Your task to perform on an android device: Open ESPN.com Image 0: 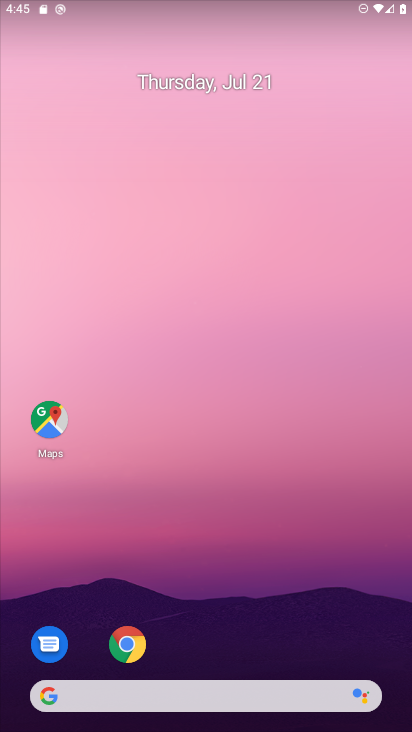
Step 0: click (120, 647)
Your task to perform on an android device: Open ESPN.com Image 1: 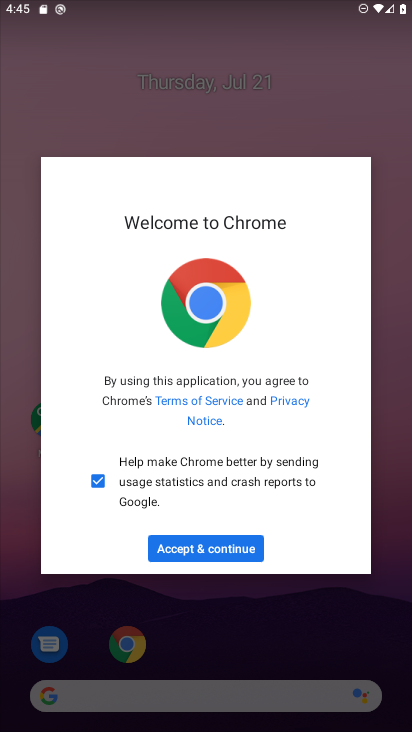
Step 1: click (167, 541)
Your task to perform on an android device: Open ESPN.com Image 2: 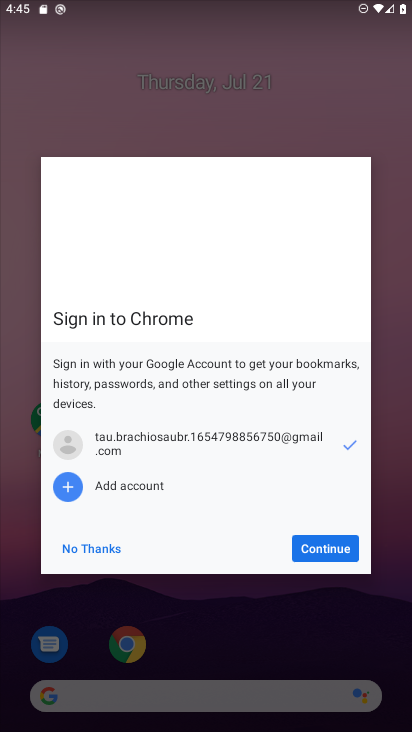
Step 2: click (338, 549)
Your task to perform on an android device: Open ESPN.com Image 3: 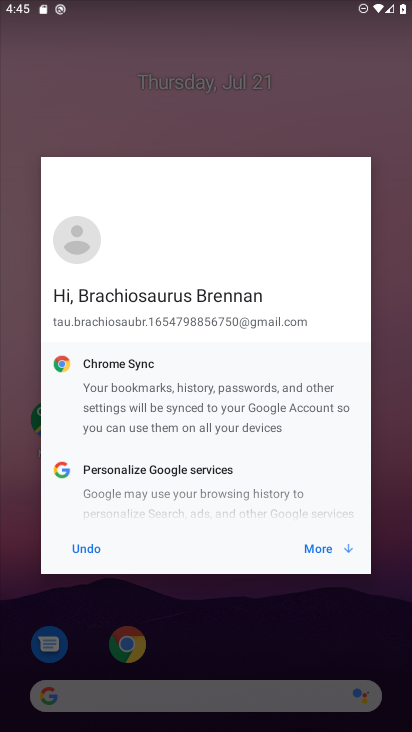
Step 3: click (328, 544)
Your task to perform on an android device: Open ESPN.com Image 4: 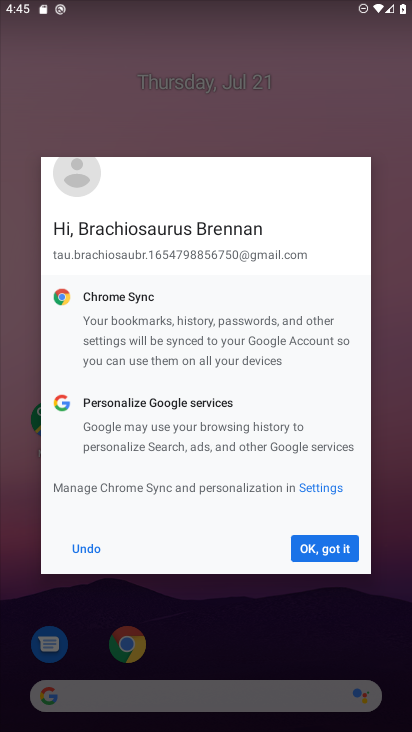
Step 4: click (309, 549)
Your task to perform on an android device: Open ESPN.com Image 5: 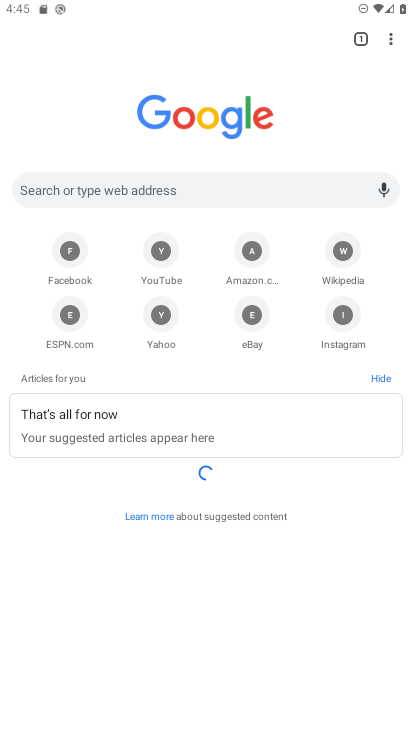
Step 5: click (165, 181)
Your task to perform on an android device: Open ESPN.com Image 6: 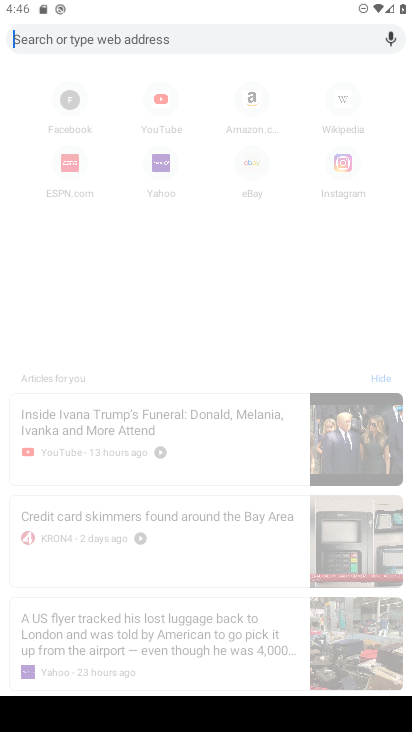
Step 6: type "www.espn.com"
Your task to perform on an android device: Open ESPN.com Image 7: 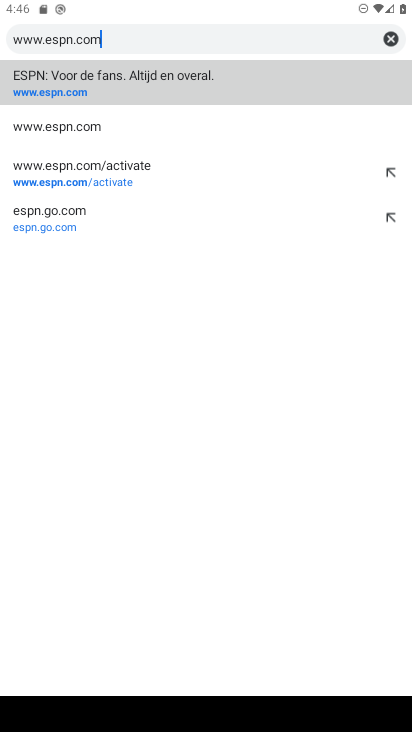
Step 7: click (39, 86)
Your task to perform on an android device: Open ESPN.com Image 8: 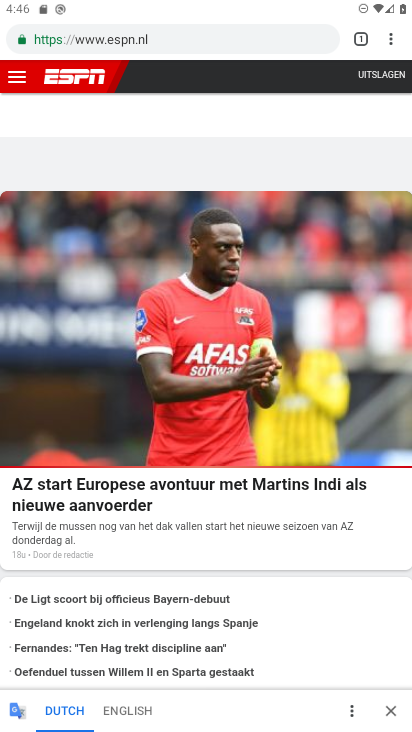
Step 8: task complete